Your task to perform on an android device: Turn on the flashlight Image 0: 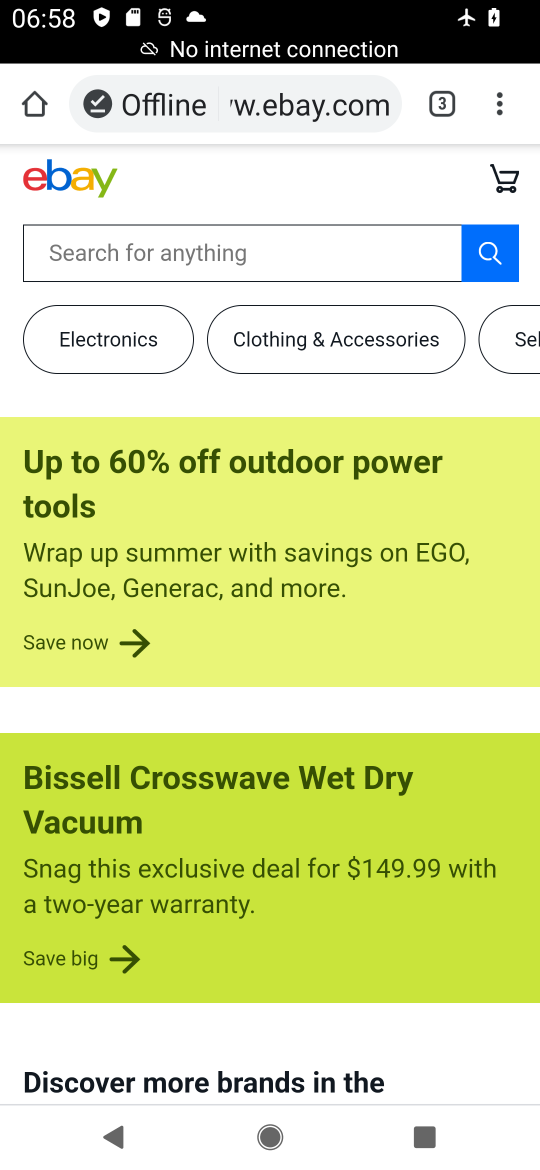
Step 0: press home button
Your task to perform on an android device: Turn on the flashlight Image 1: 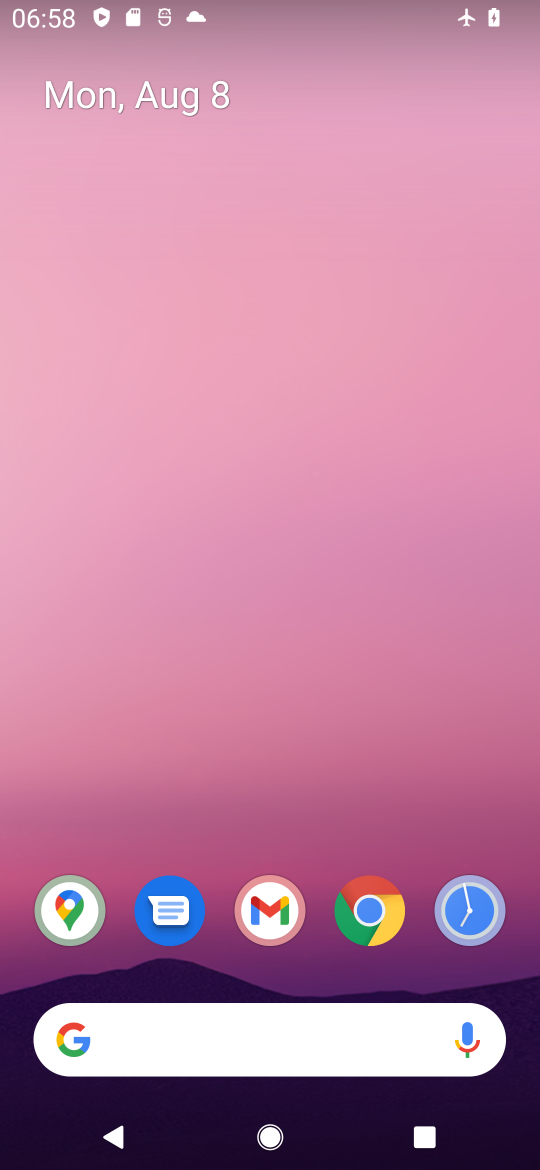
Step 1: drag from (199, 1035) to (286, 405)
Your task to perform on an android device: Turn on the flashlight Image 2: 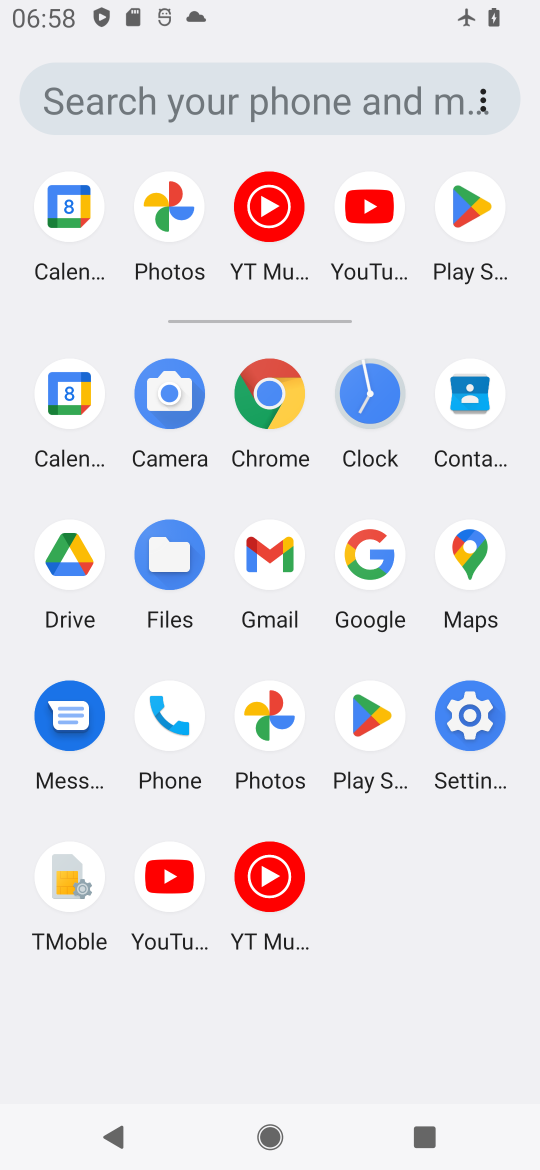
Step 2: click (470, 726)
Your task to perform on an android device: Turn on the flashlight Image 3: 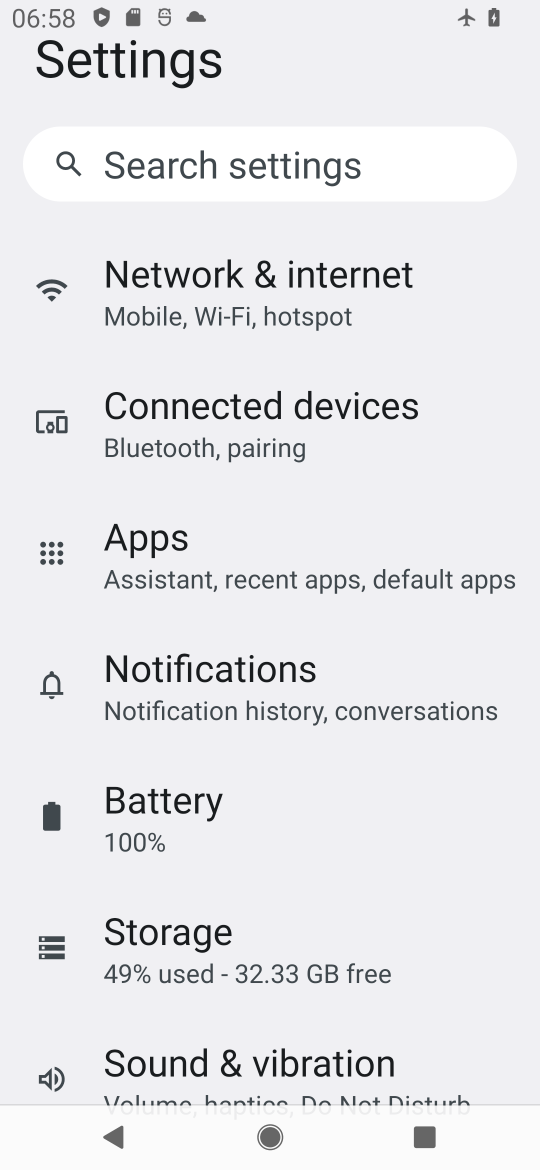
Step 3: click (305, 158)
Your task to perform on an android device: Turn on the flashlight Image 4: 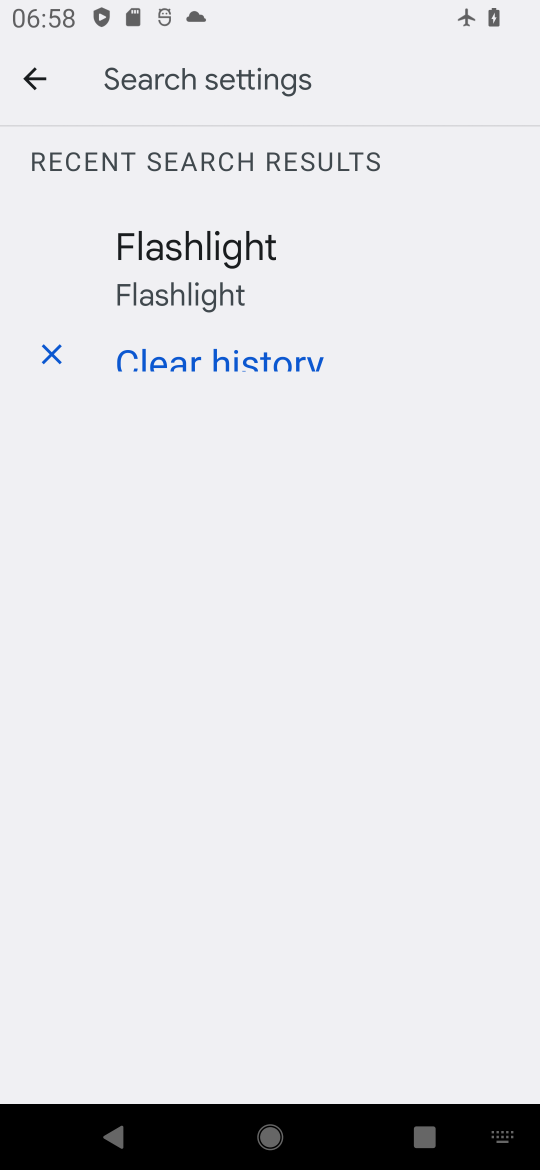
Step 4: click (223, 262)
Your task to perform on an android device: Turn on the flashlight Image 5: 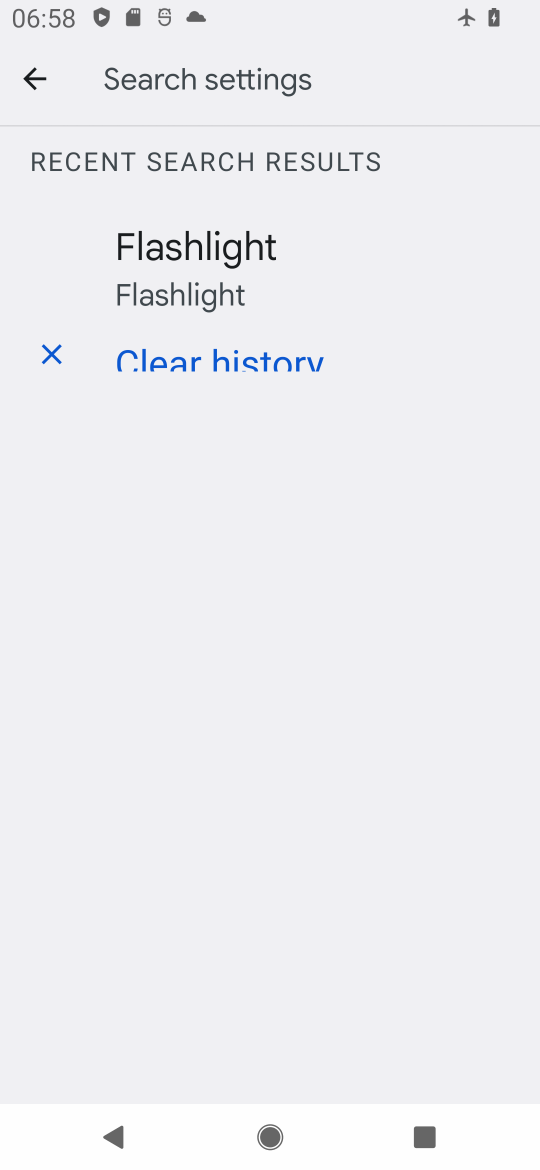
Step 5: click (223, 262)
Your task to perform on an android device: Turn on the flashlight Image 6: 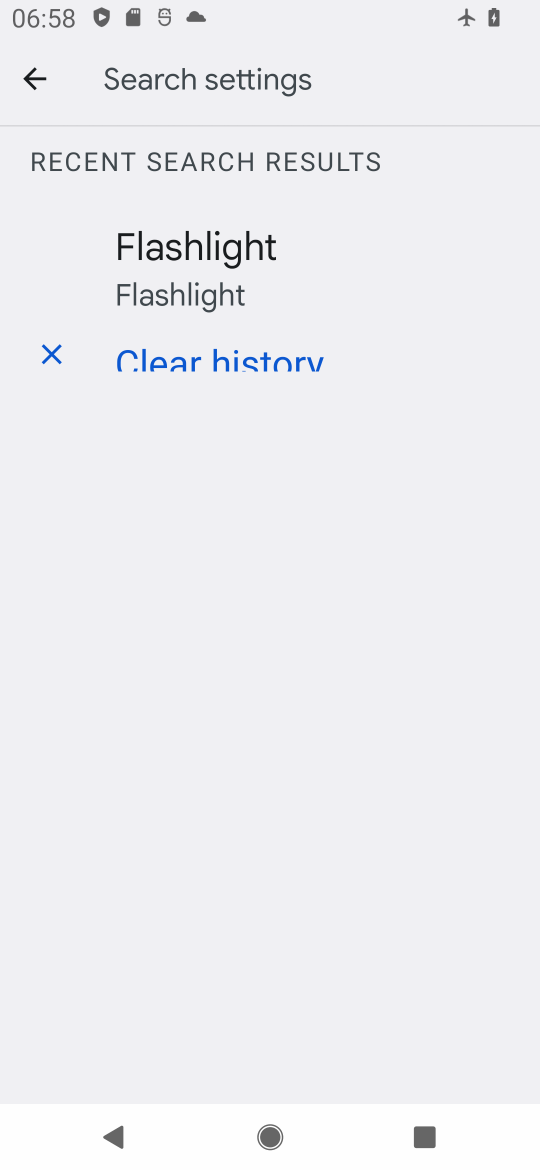
Step 6: click (139, 368)
Your task to perform on an android device: Turn on the flashlight Image 7: 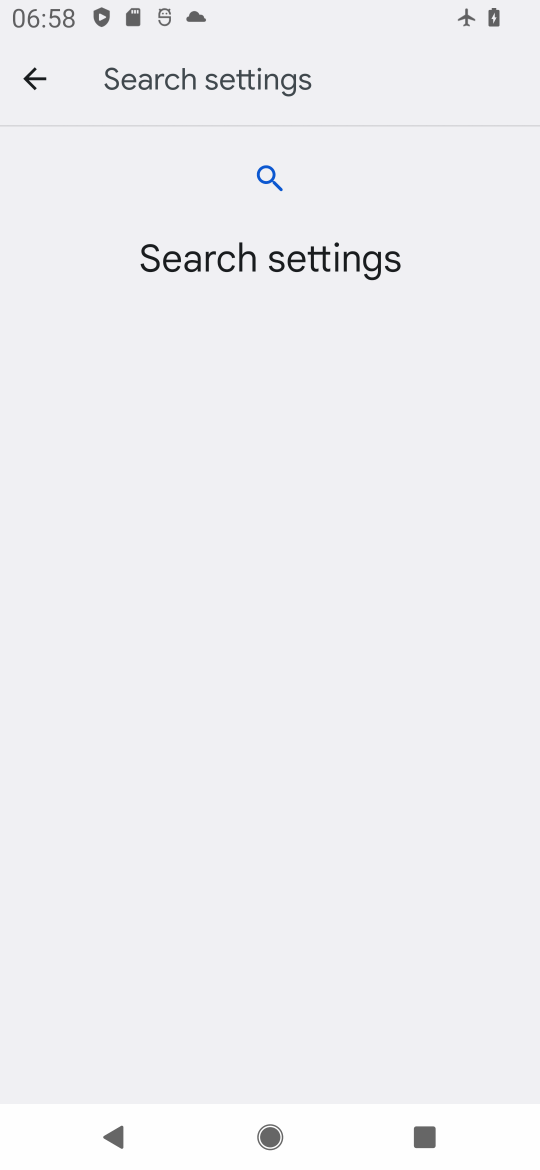
Step 7: click (197, 60)
Your task to perform on an android device: Turn on the flashlight Image 8: 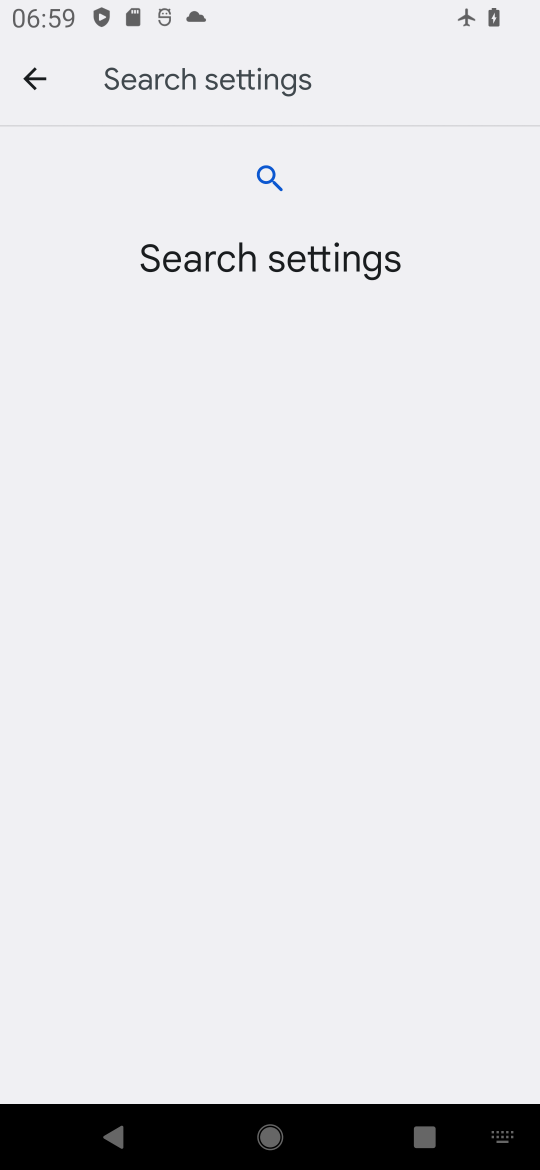
Step 8: type "Flashlight"
Your task to perform on an android device: Turn on the flashlight Image 9: 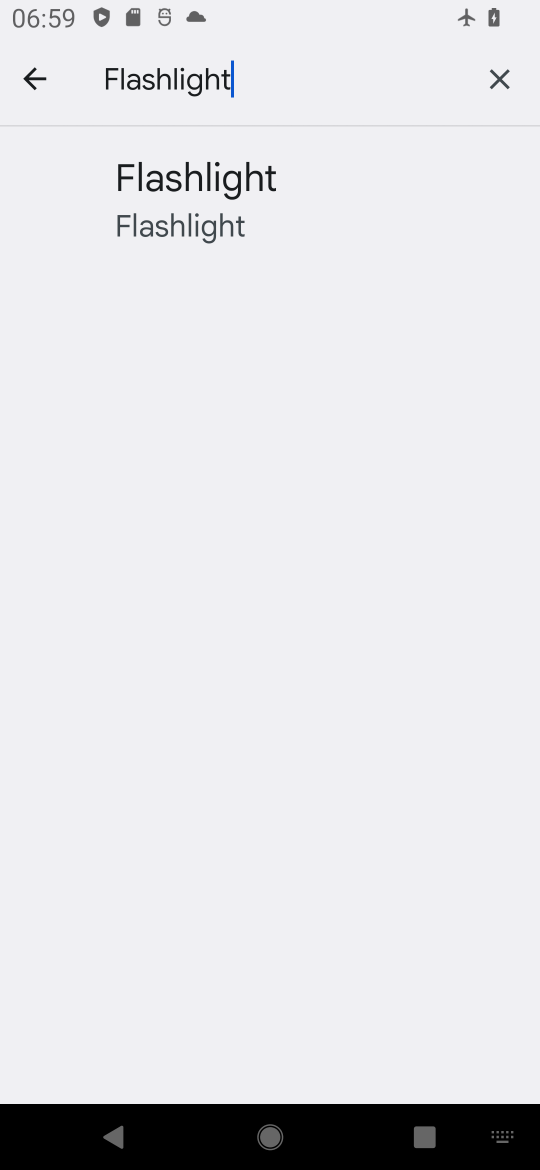
Step 9: click (236, 220)
Your task to perform on an android device: Turn on the flashlight Image 10: 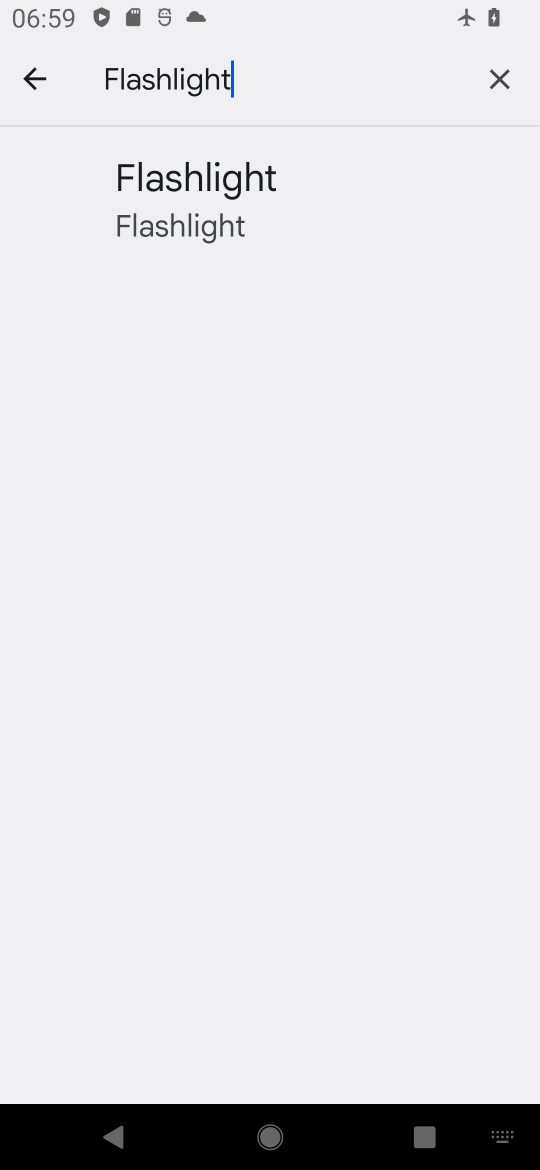
Step 10: task complete